Your task to perform on an android device: manage bookmarks in the chrome app Image 0: 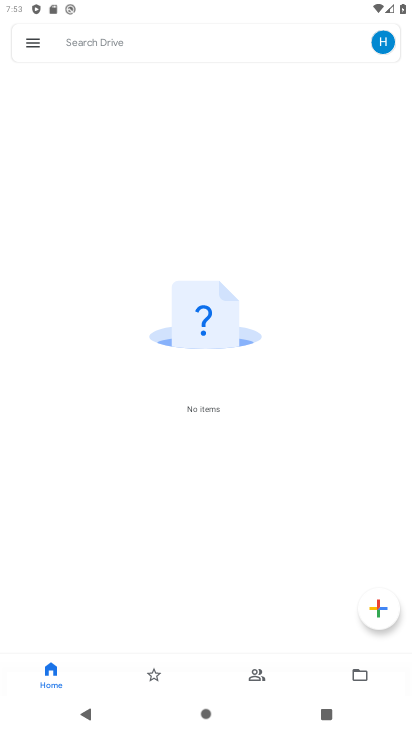
Step 0: press home button
Your task to perform on an android device: manage bookmarks in the chrome app Image 1: 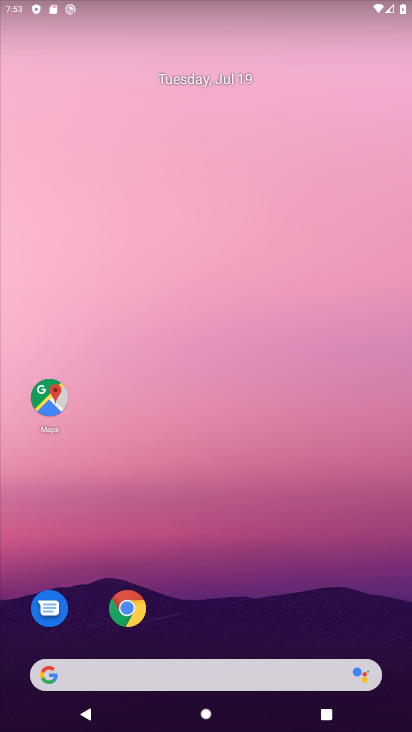
Step 1: click (120, 594)
Your task to perform on an android device: manage bookmarks in the chrome app Image 2: 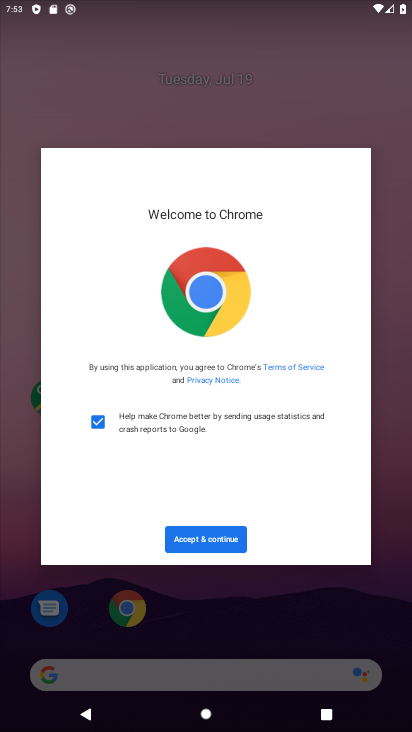
Step 2: click (217, 548)
Your task to perform on an android device: manage bookmarks in the chrome app Image 3: 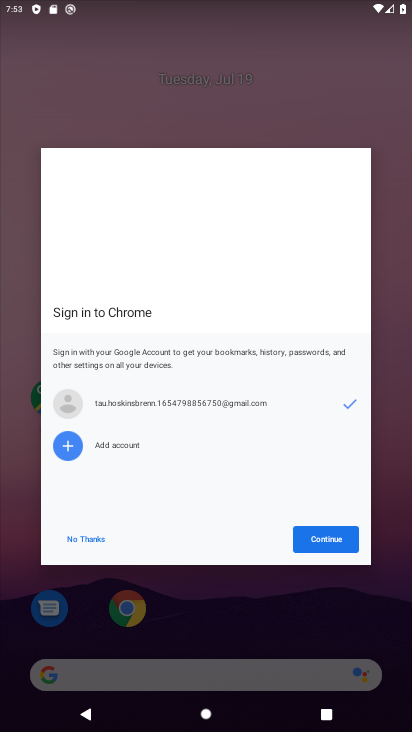
Step 3: click (314, 549)
Your task to perform on an android device: manage bookmarks in the chrome app Image 4: 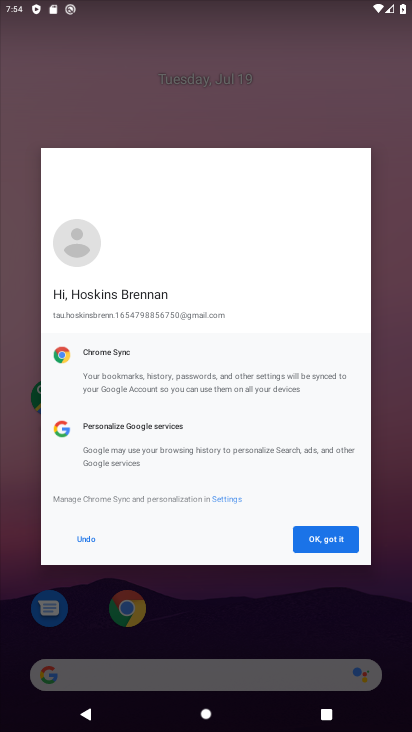
Step 4: click (342, 552)
Your task to perform on an android device: manage bookmarks in the chrome app Image 5: 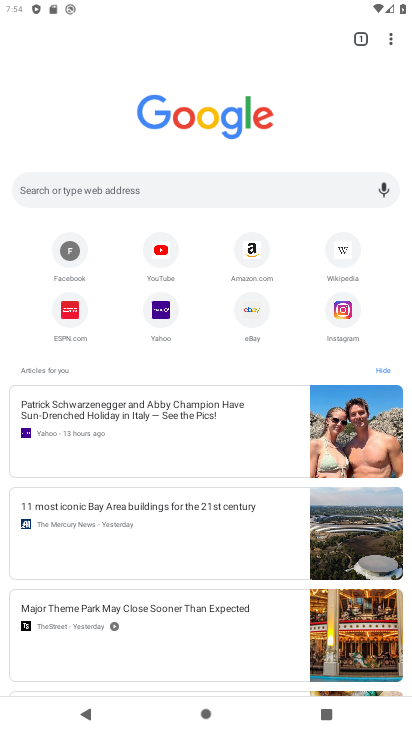
Step 5: drag from (386, 37) to (275, 148)
Your task to perform on an android device: manage bookmarks in the chrome app Image 6: 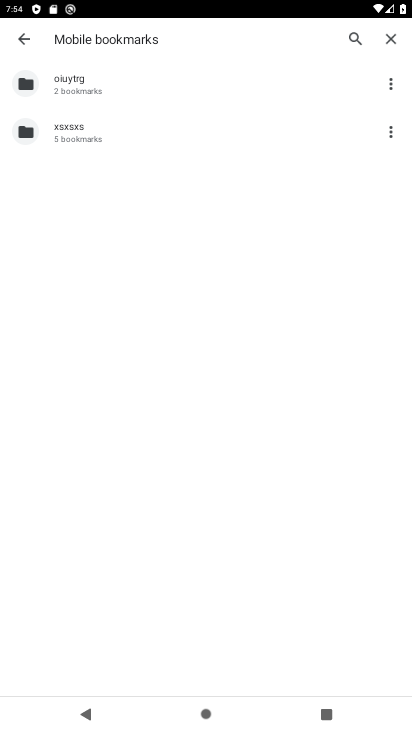
Step 6: click (390, 87)
Your task to perform on an android device: manage bookmarks in the chrome app Image 7: 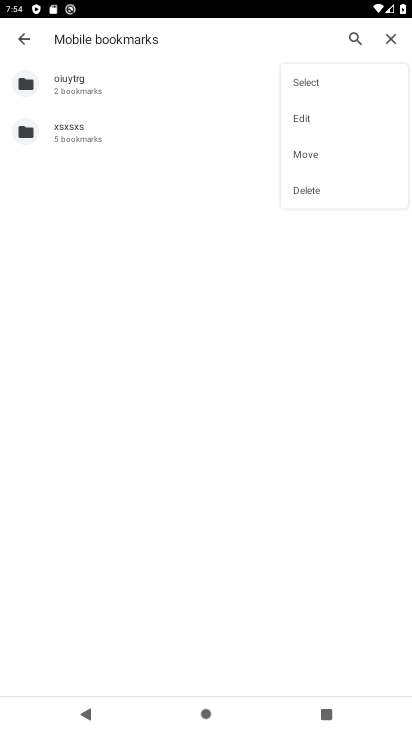
Step 7: click (317, 185)
Your task to perform on an android device: manage bookmarks in the chrome app Image 8: 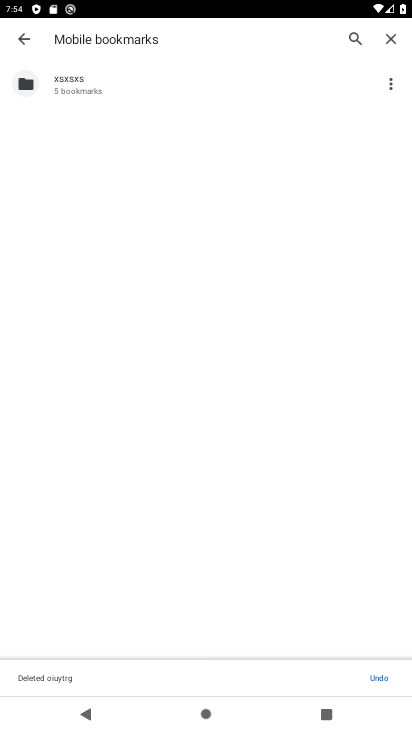
Step 8: task complete